Your task to perform on an android device: Play the new Justin Bieber video on YouTube Image 0: 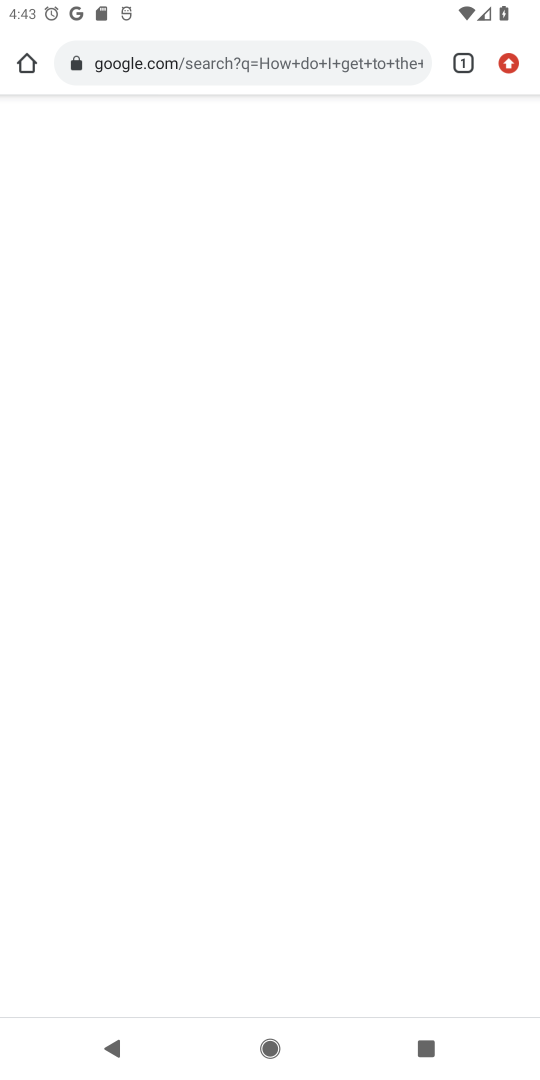
Step 0: press home button
Your task to perform on an android device: Play the new Justin Bieber video on YouTube Image 1: 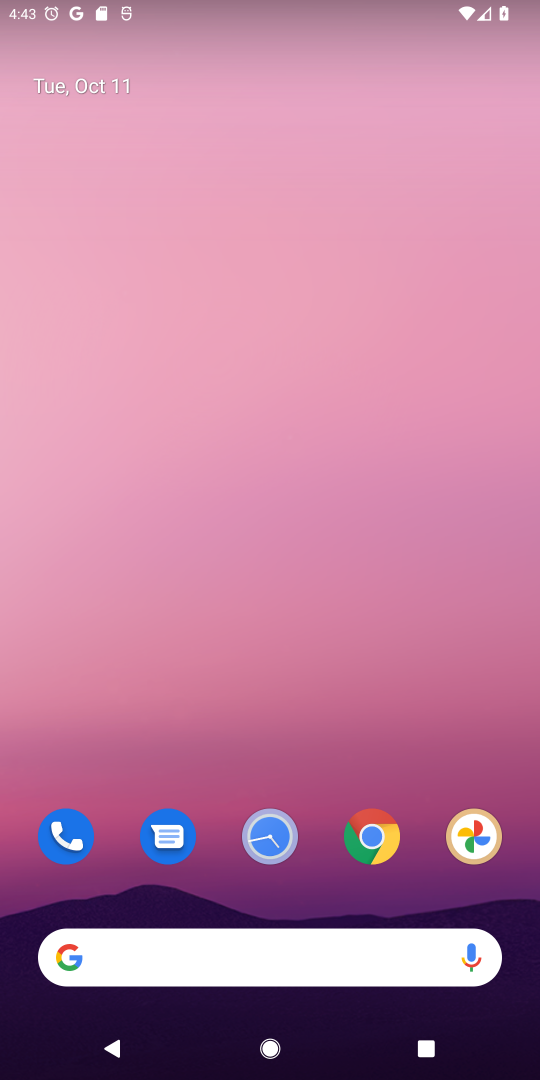
Step 1: click (288, 959)
Your task to perform on an android device: Play the new Justin Bieber video on YouTube Image 2: 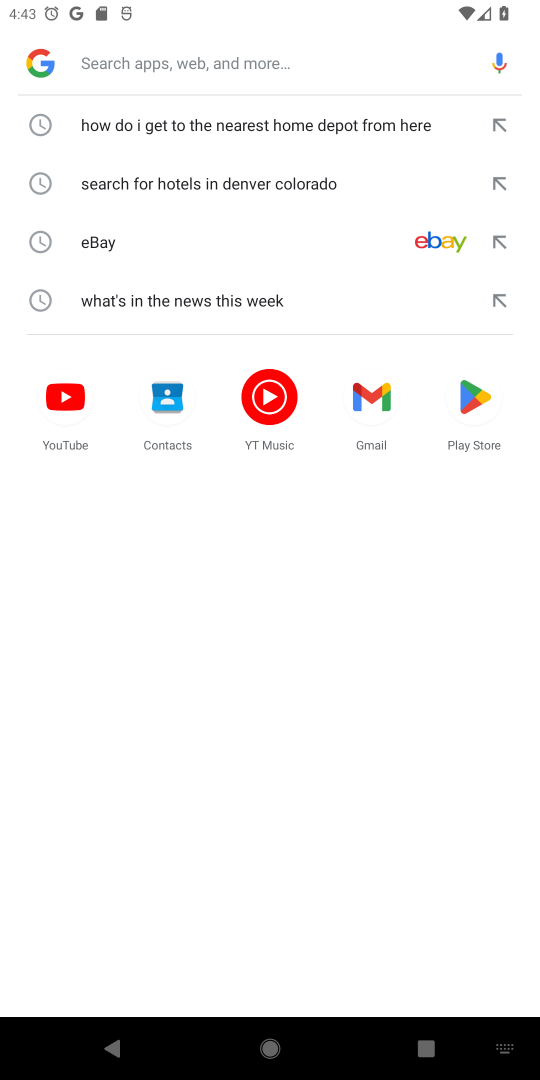
Step 2: click (48, 419)
Your task to perform on an android device: Play the new Justin Bieber video on YouTube Image 3: 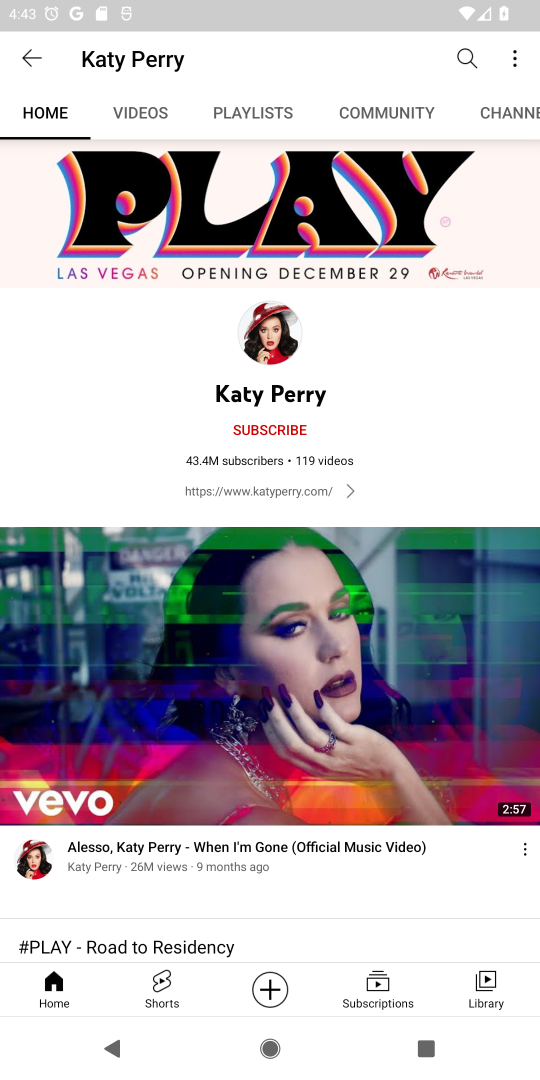
Step 3: click (459, 64)
Your task to perform on an android device: Play the new Justin Bieber video on YouTube Image 4: 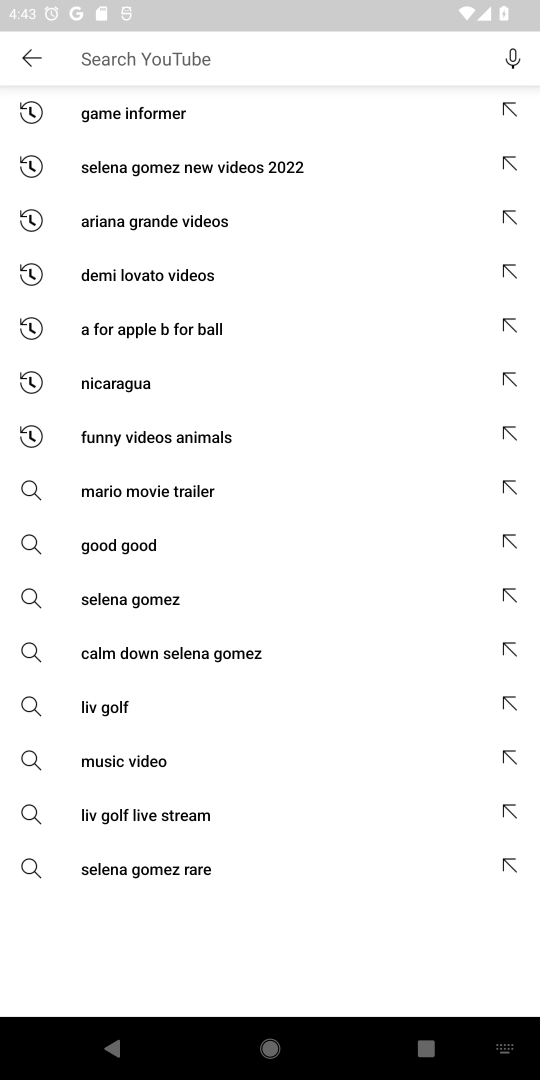
Step 4: type "Justin Bieber"
Your task to perform on an android device: Play the new Justin Bieber video on YouTube Image 5: 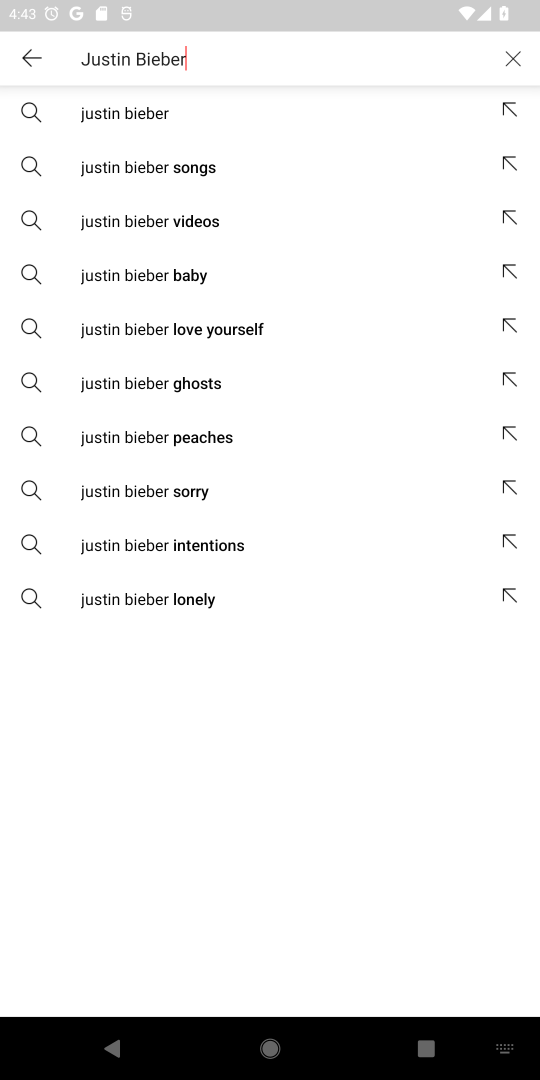
Step 5: click (306, 116)
Your task to perform on an android device: Play the new Justin Bieber video on YouTube Image 6: 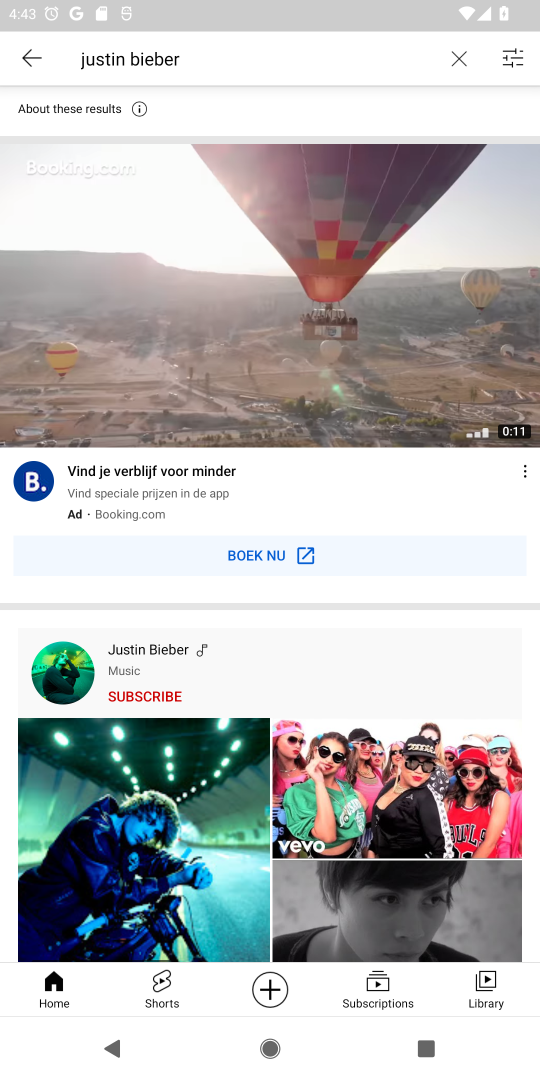
Step 6: task complete